Your task to perform on an android device: Go to Wikipedia Image 0: 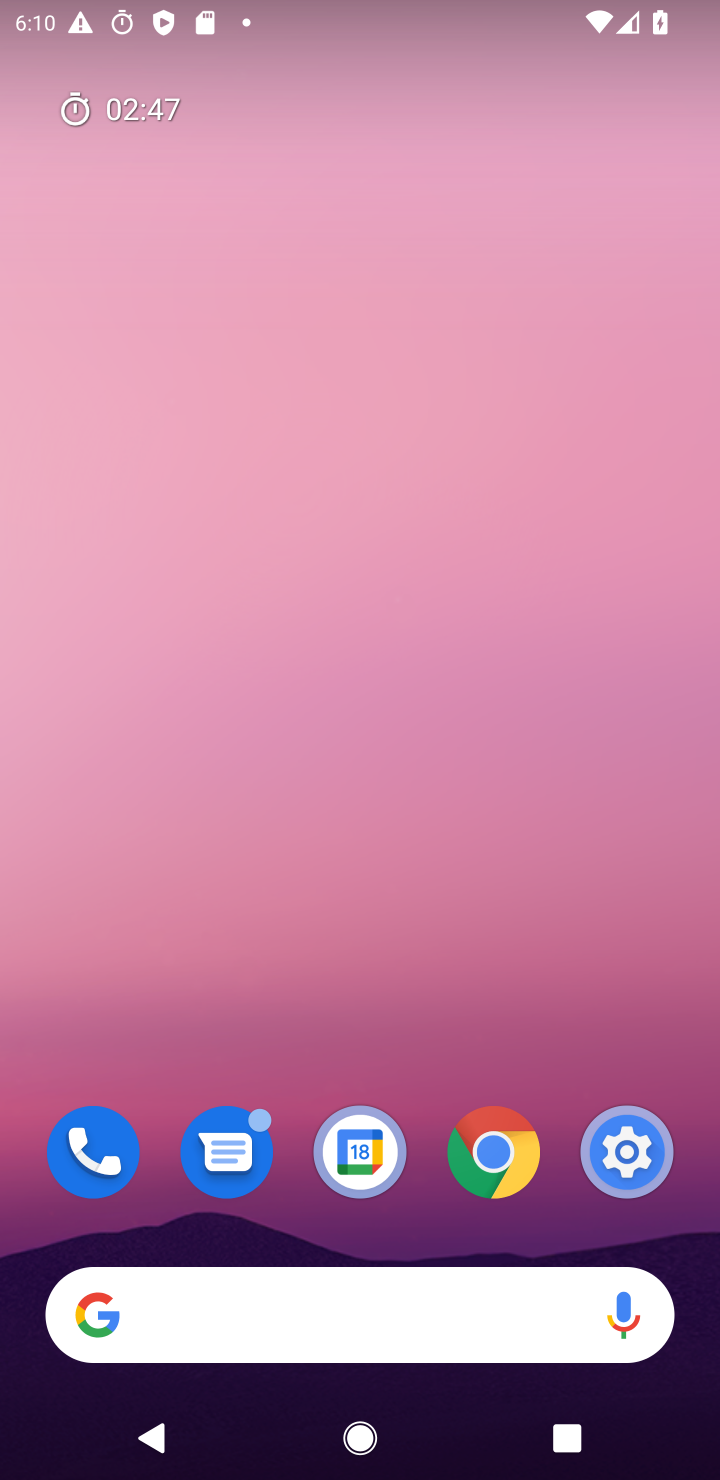
Step 0: drag from (362, 934) to (546, 4)
Your task to perform on an android device: Go to Wikipedia Image 1: 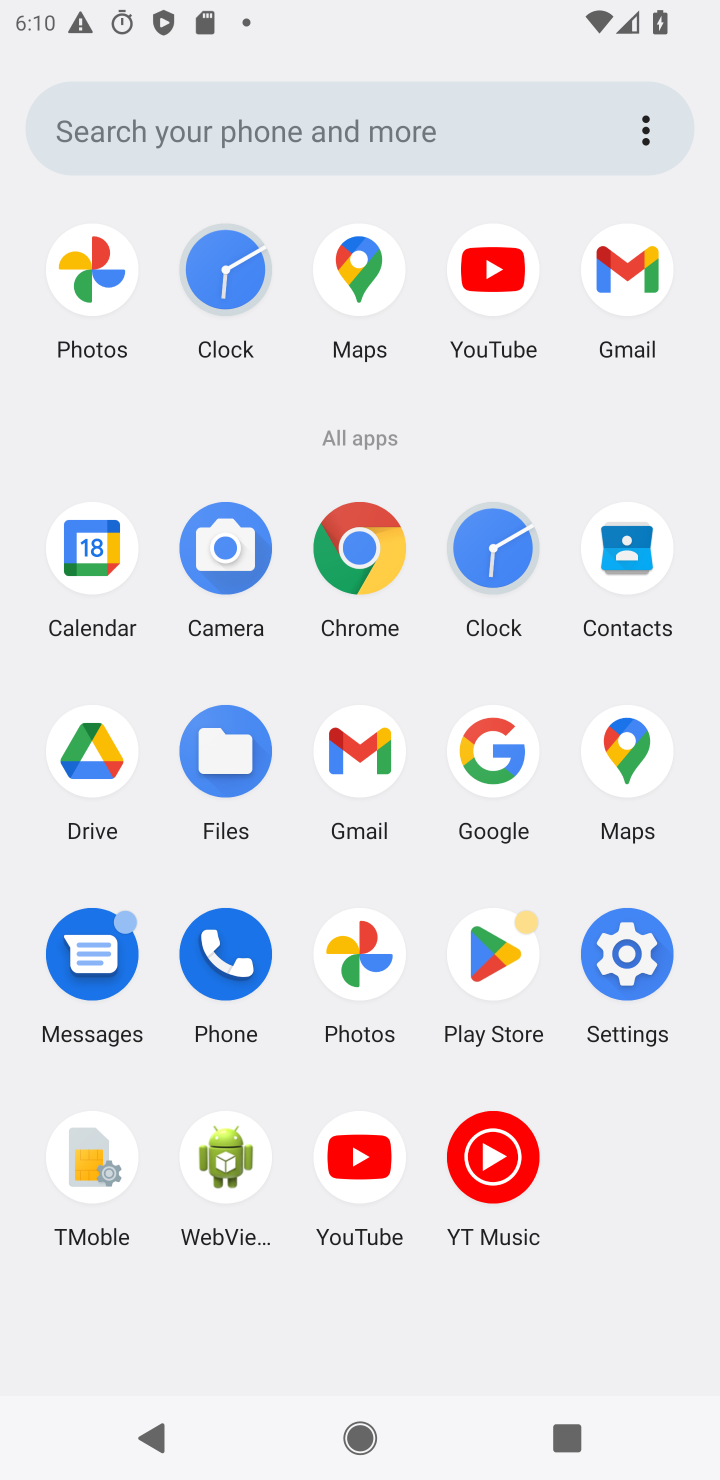
Step 1: click (357, 552)
Your task to perform on an android device: Go to Wikipedia Image 2: 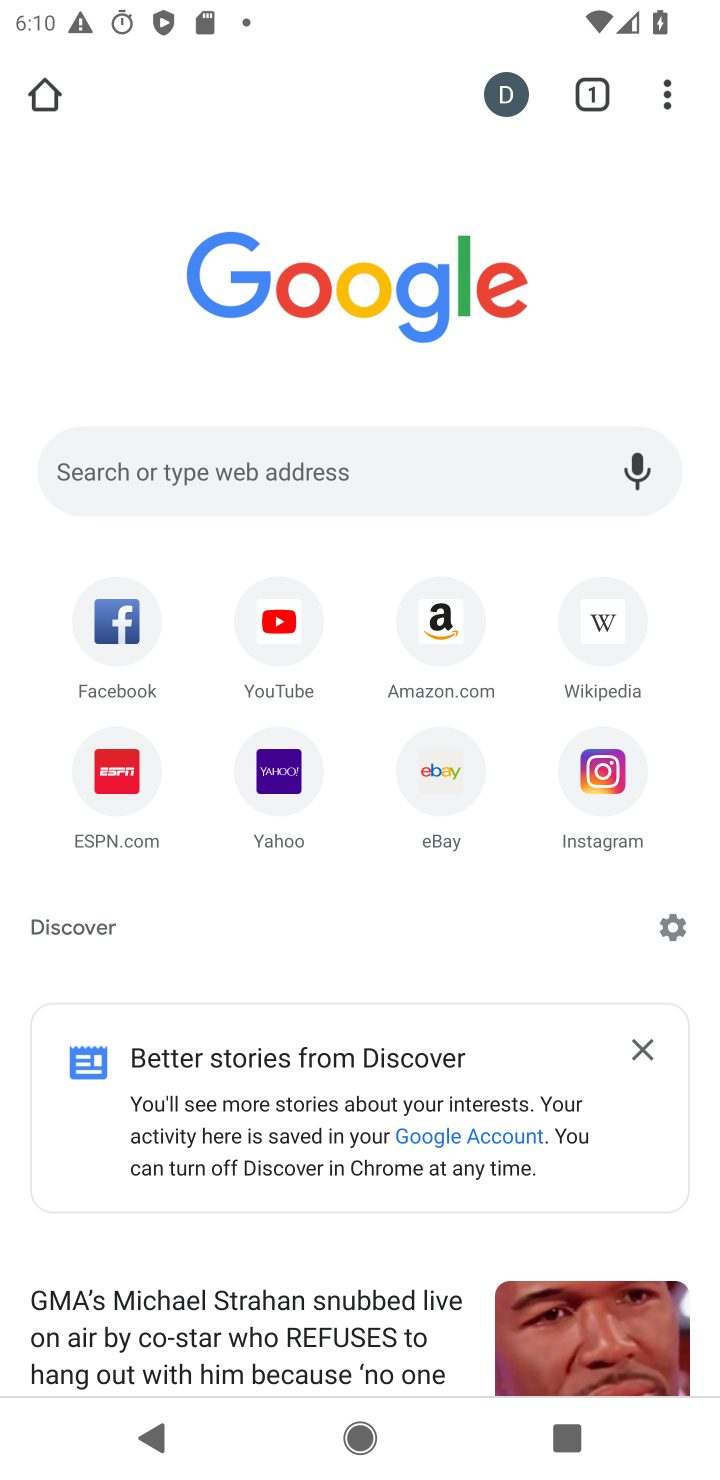
Step 2: click (430, 461)
Your task to perform on an android device: Go to Wikipedia Image 3: 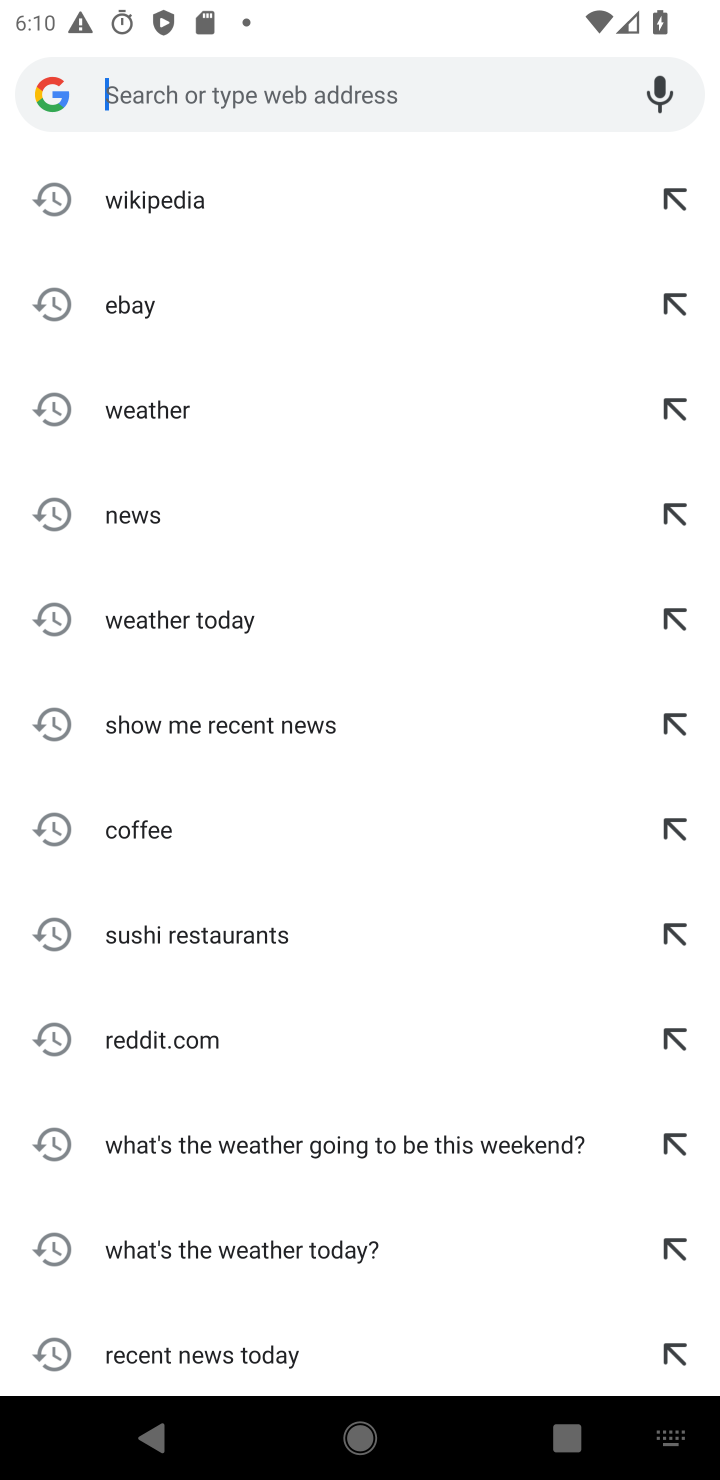
Step 3: type " Wikipedia"
Your task to perform on an android device: Go to Wikipedia Image 4: 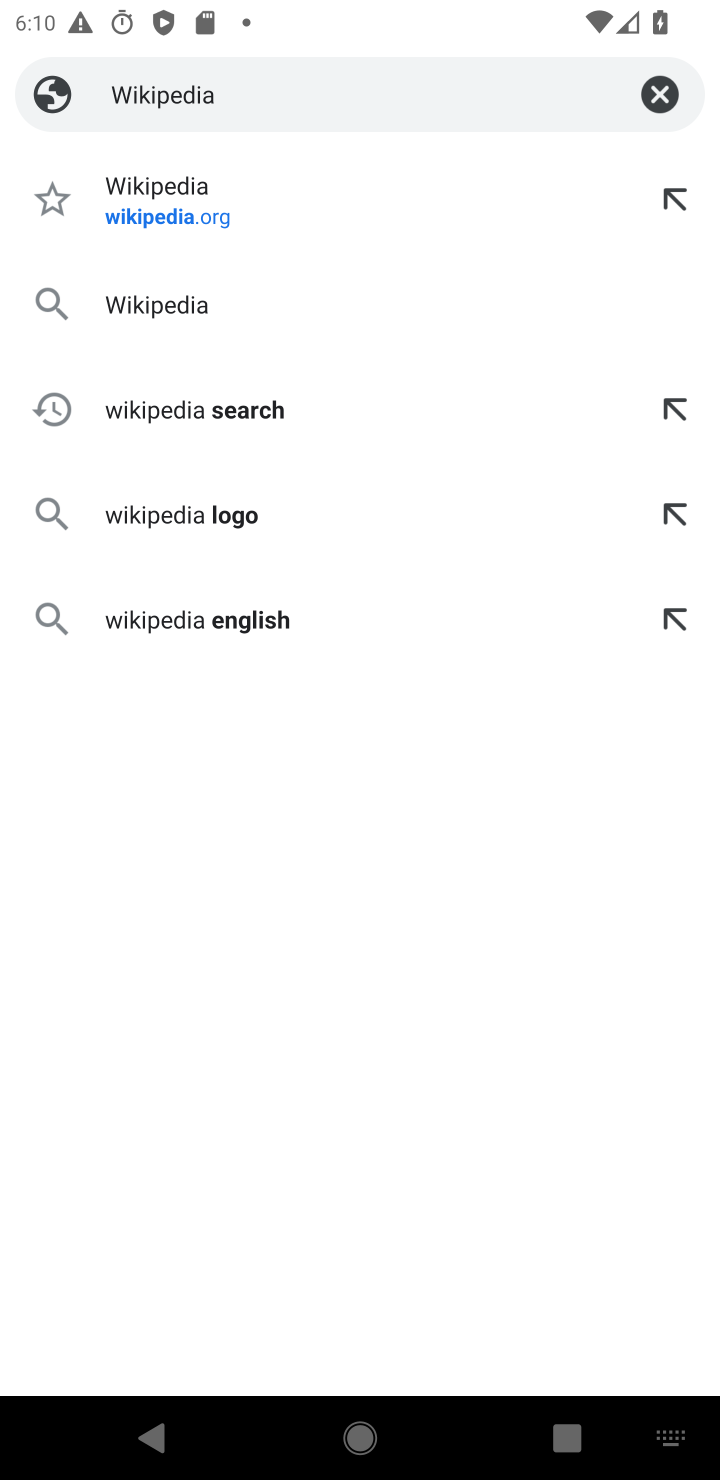
Step 4: click (158, 226)
Your task to perform on an android device: Go to Wikipedia Image 5: 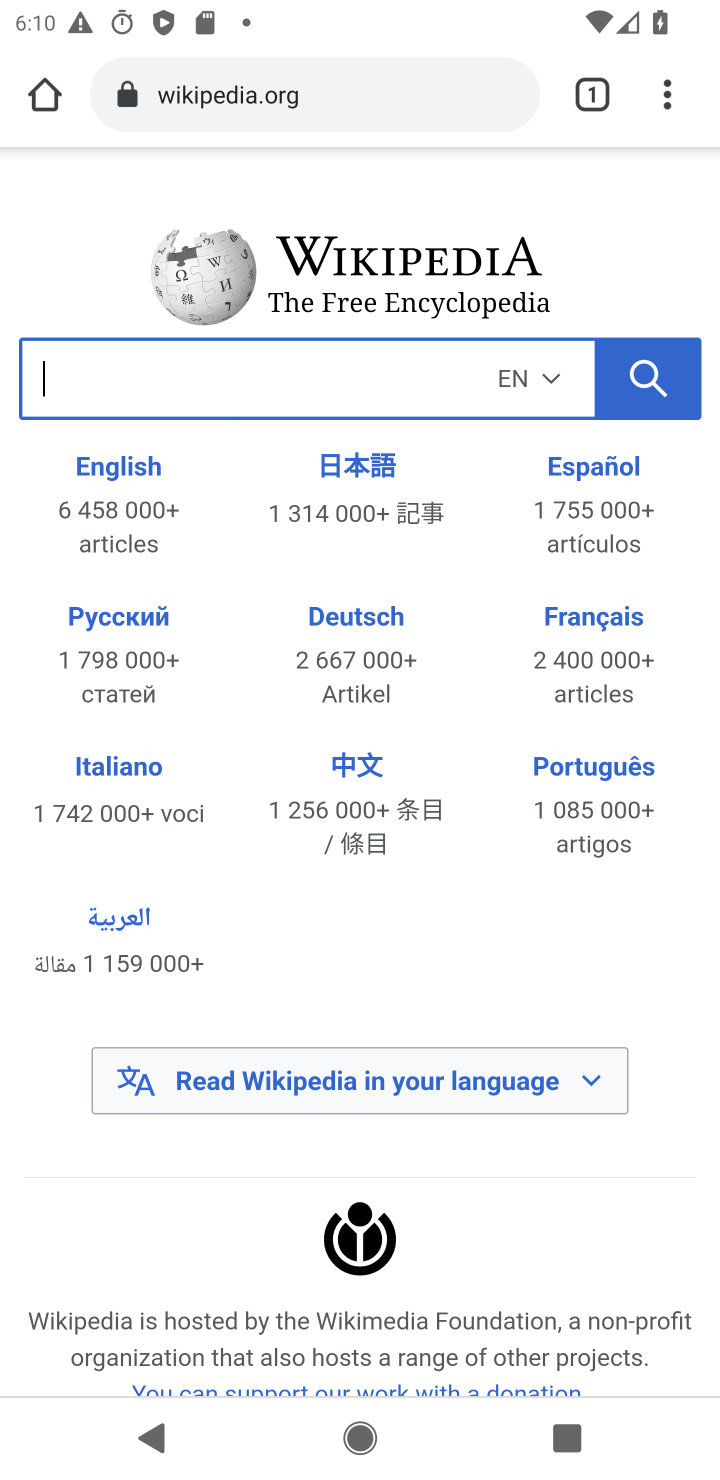
Step 5: task complete